Your task to perform on an android device: turn on the 12-hour format for clock Image 0: 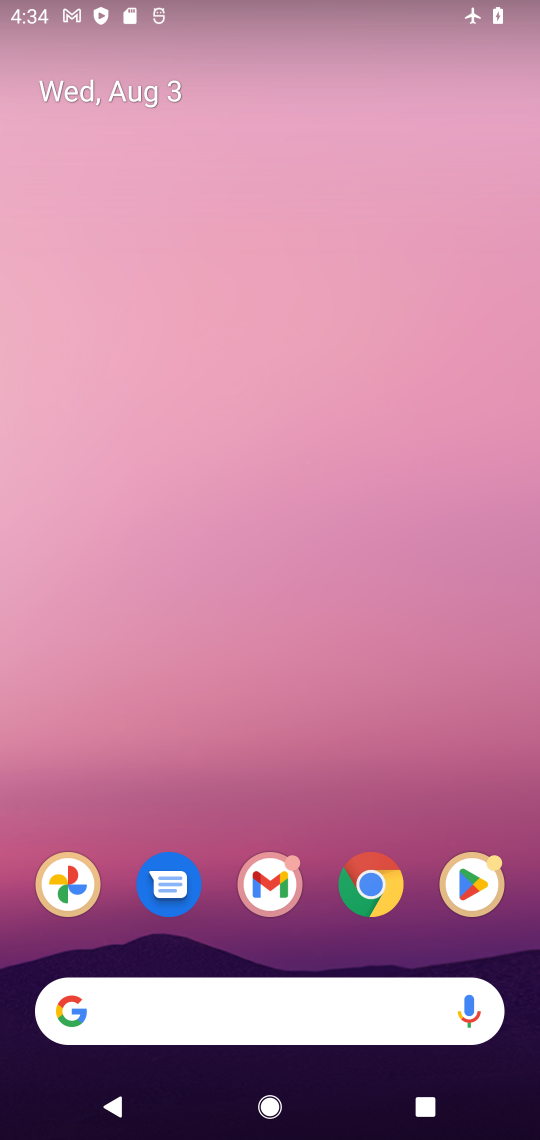
Step 0: drag from (381, 1045) to (486, 13)
Your task to perform on an android device: turn on the 12-hour format for clock Image 1: 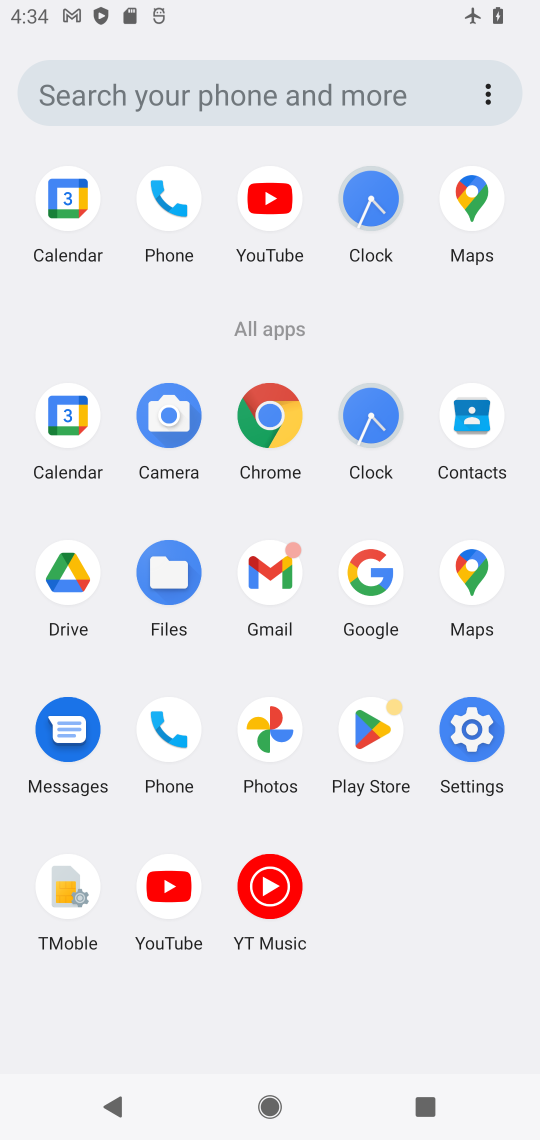
Step 1: click (361, 427)
Your task to perform on an android device: turn on the 12-hour format for clock Image 2: 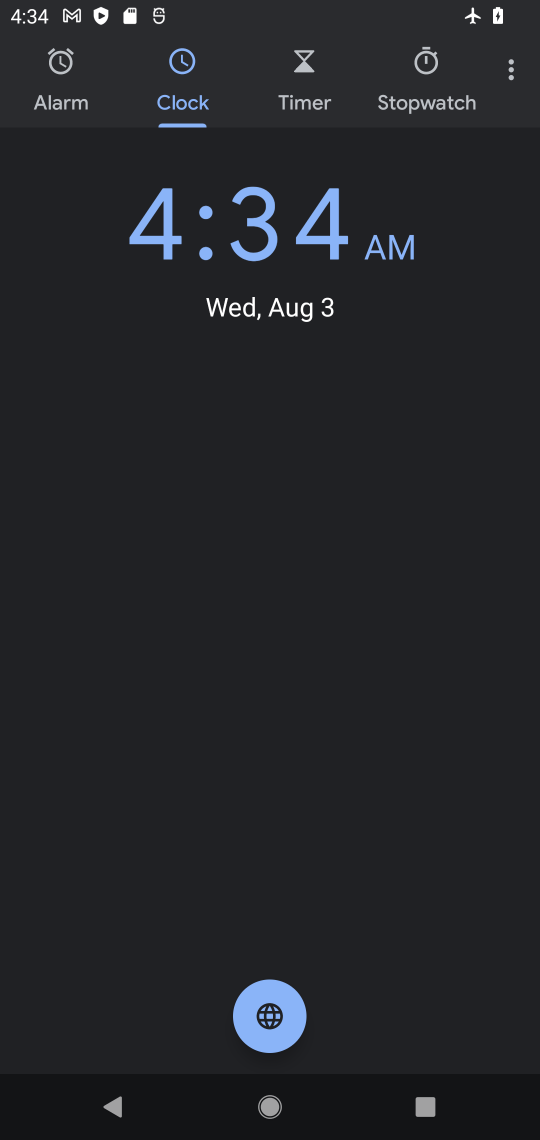
Step 2: click (503, 80)
Your task to perform on an android device: turn on the 12-hour format for clock Image 3: 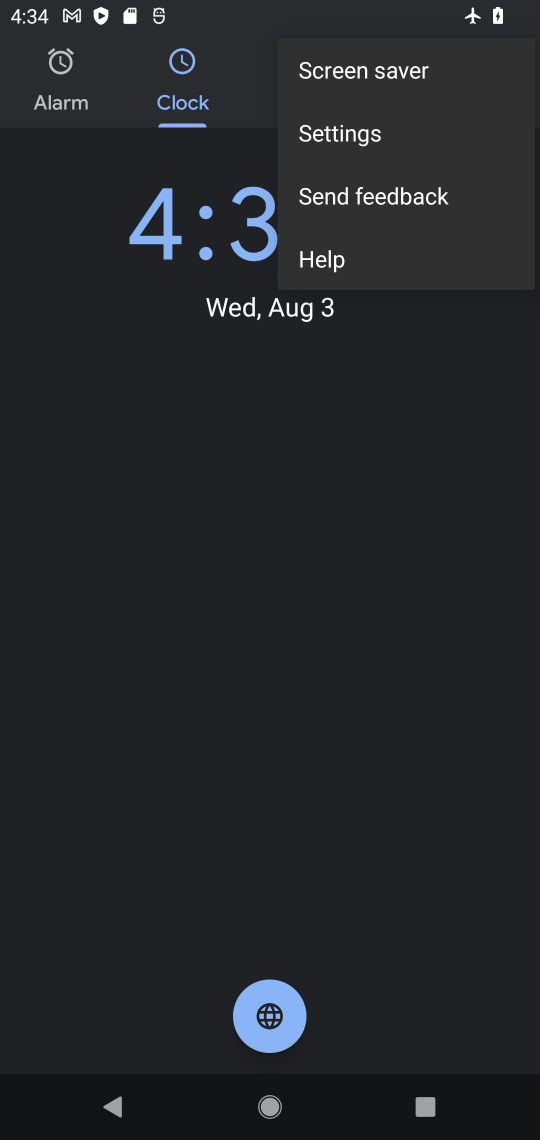
Step 3: click (338, 138)
Your task to perform on an android device: turn on the 12-hour format for clock Image 4: 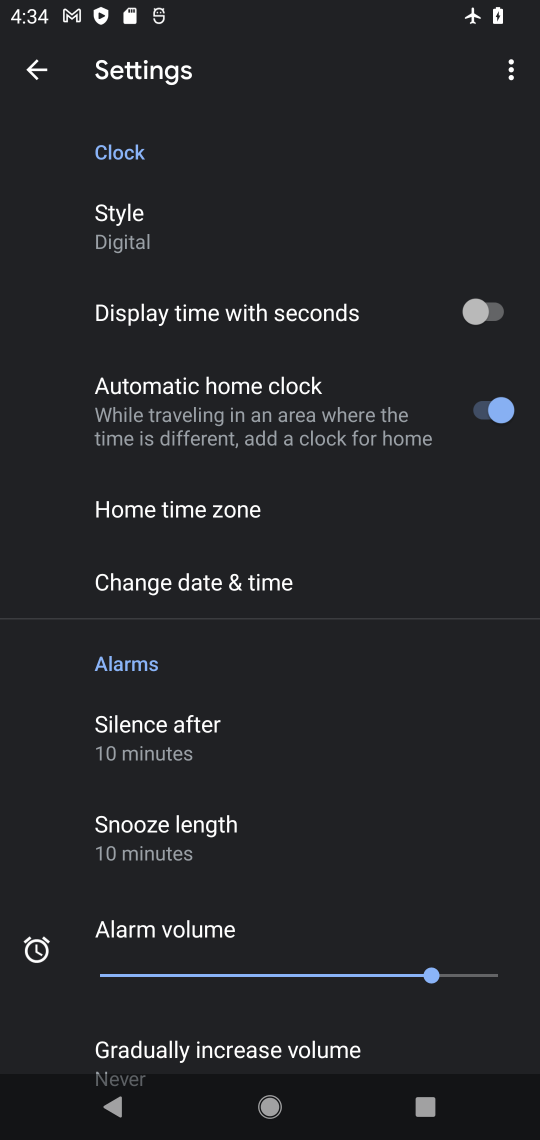
Step 4: click (202, 574)
Your task to perform on an android device: turn on the 12-hour format for clock Image 5: 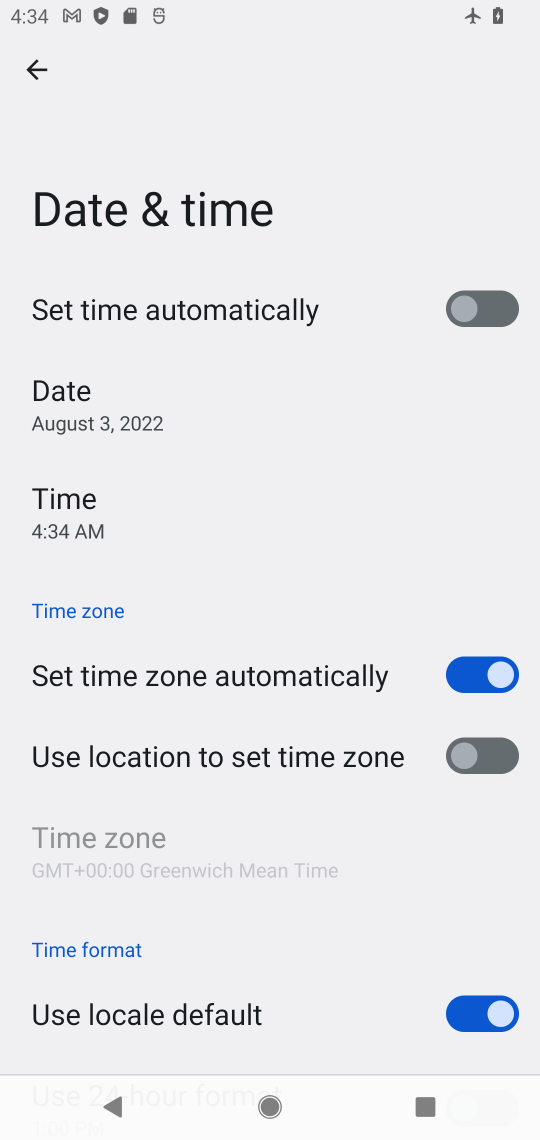
Step 5: task complete